Your task to perform on an android device: toggle airplane mode Image 0: 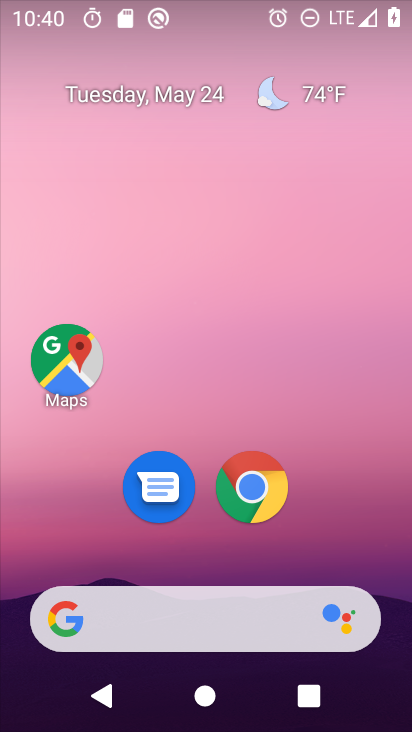
Step 0: drag from (374, 569) to (380, 6)
Your task to perform on an android device: toggle airplane mode Image 1: 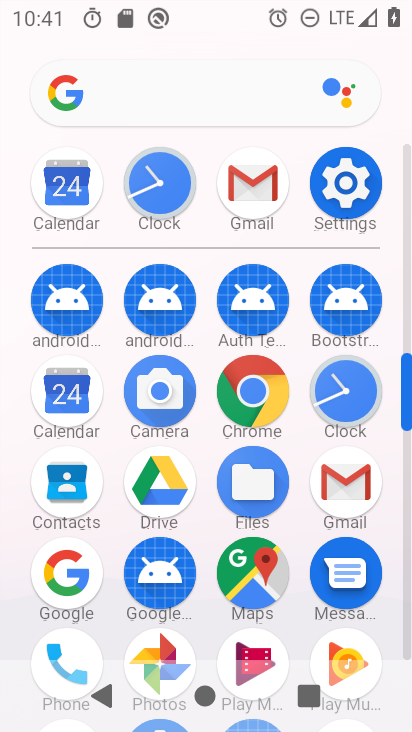
Step 1: click (341, 193)
Your task to perform on an android device: toggle airplane mode Image 2: 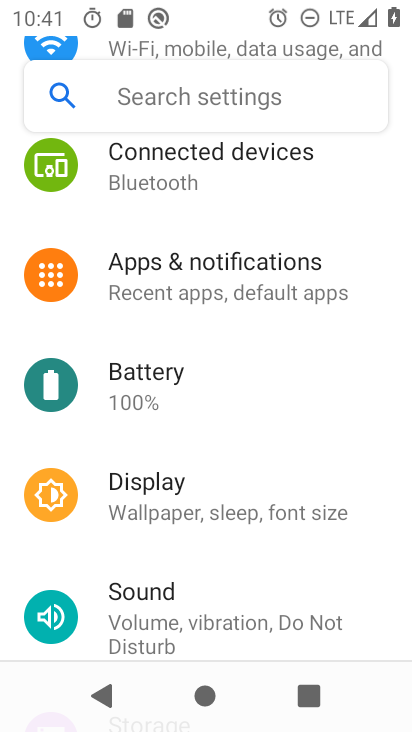
Step 2: drag from (322, 236) to (345, 552)
Your task to perform on an android device: toggle airplane mode Image 3: 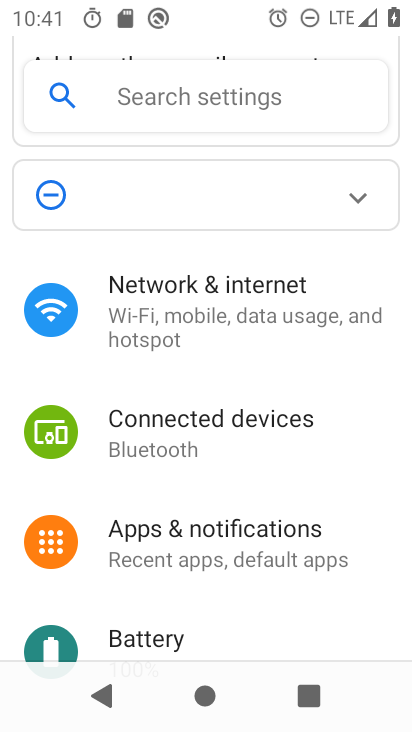
Step 3: click (142, 309)
Your task to perform on an android device: toggle airplane mode Image 4: 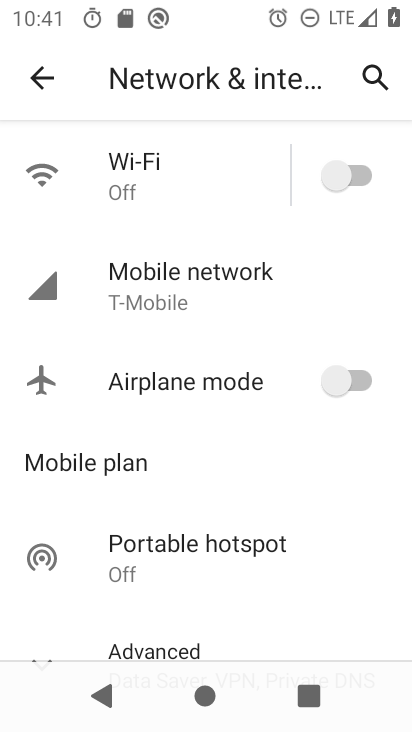
Step 4: click (360, 384)
Your task to perform on an android device: toggle airplane mode Image 5: 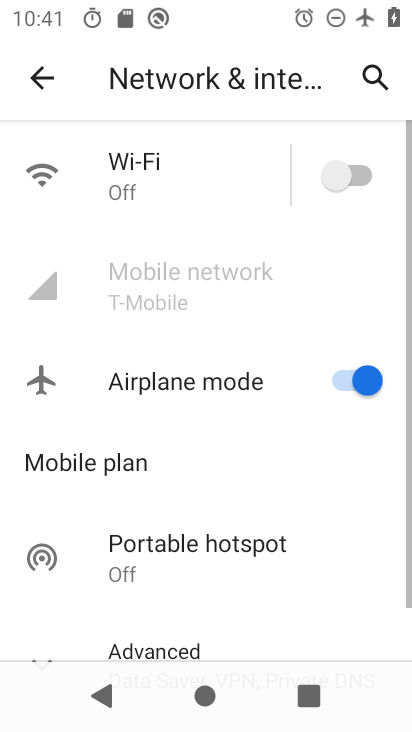
Step 5: task complete